Your task to perform on an android device: Open calendar and show me the second week of next month Image 0: 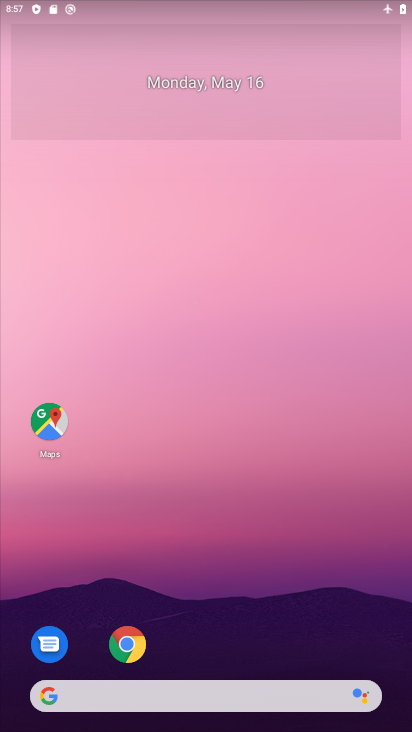
Step 0: drag from (369, 6) to (401, 385)
Your task to perform on an android device: Open calendar and show me the second week of next month Image 1: 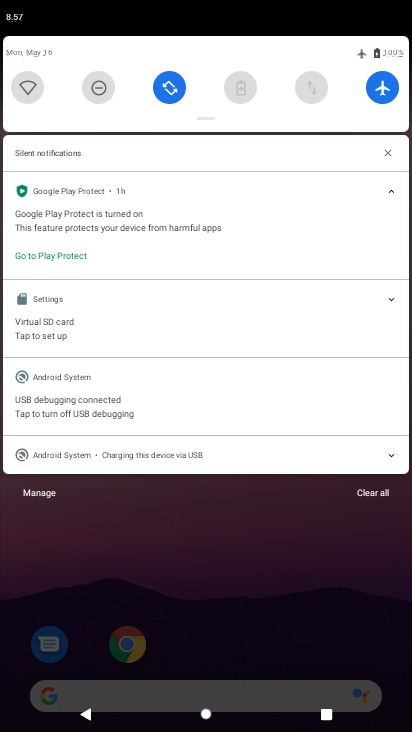
Step 1: click (390, 95)
Your task to perform on an android device: Open calendar and show me the second week of next month Image 2: 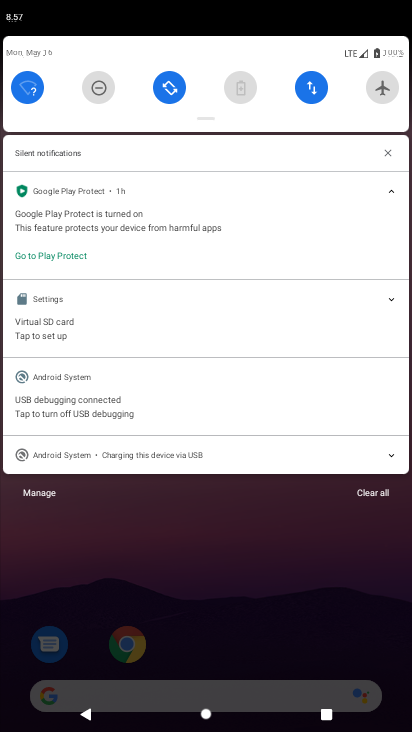
Step 2: task complete